Your task to perform on an android device: Go to privacy settings Image 0: 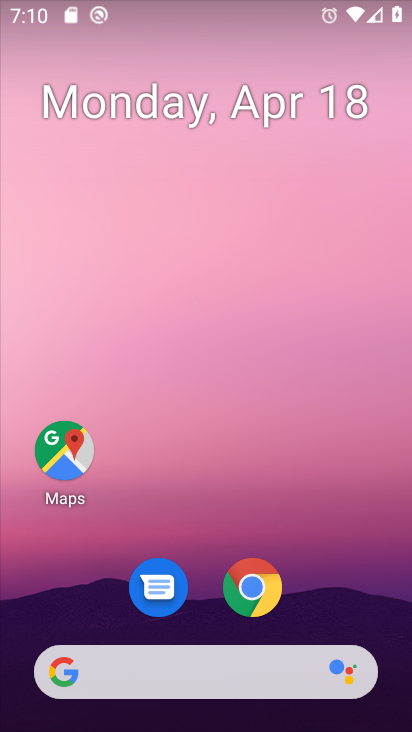
Step 0: drag from (314, 574) to (372, 180)
Your task to perform on an android device: Go to privacy settings Image 1: 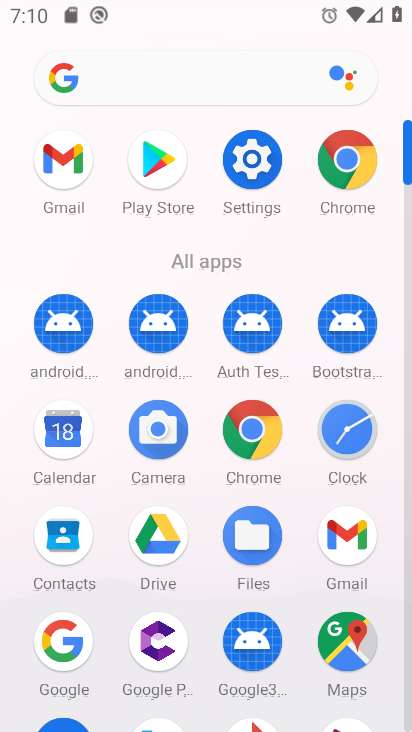
Step 1: click (275, 194)
Your task to perform on an android device: Go to privacy settings Image 2: 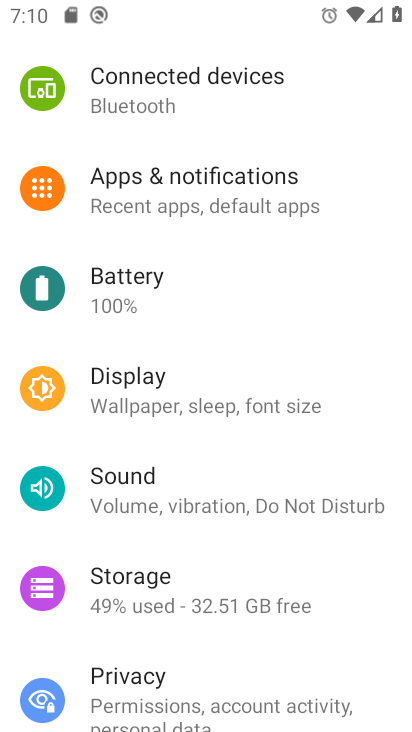
Step 2: click (200, 687)
Your task to perform on an android device: Go to privacy settings Image 3: 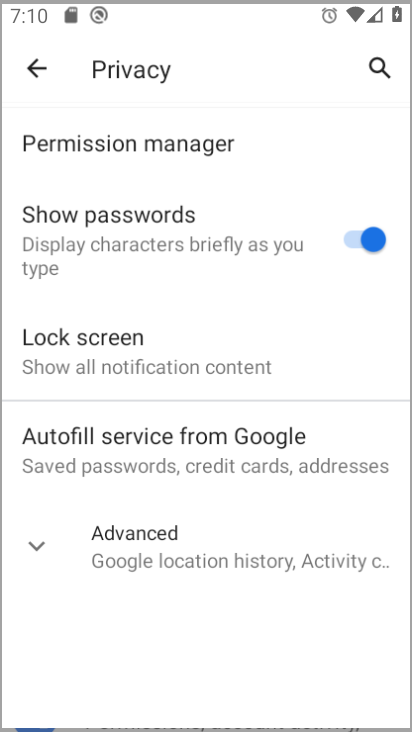
Step 3: task complete